Your task to perform on an android device: all mails in gmail Image 0: 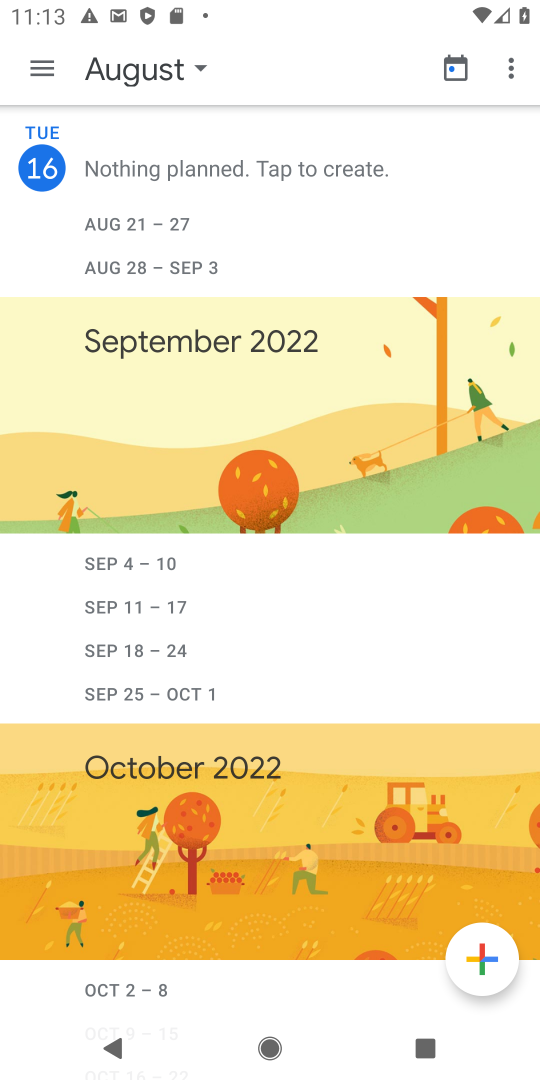
Step 0: press home button
Your task to perform on an android device: all mails in gmail Image 1: 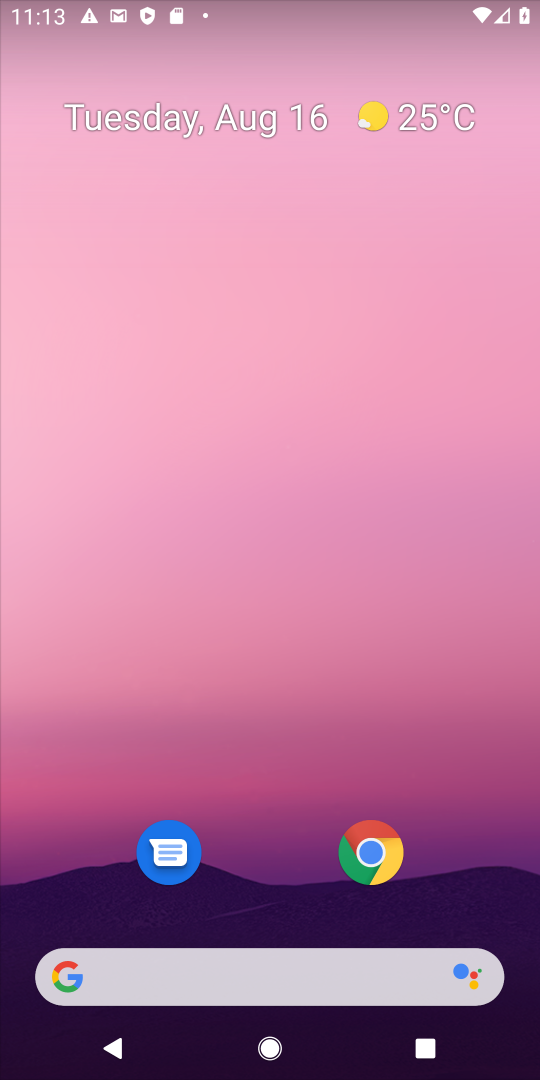
Step 1: drag from (233, 778) to (305, 277)
Your task to perform on an android device: all mails in gmail Image 2: 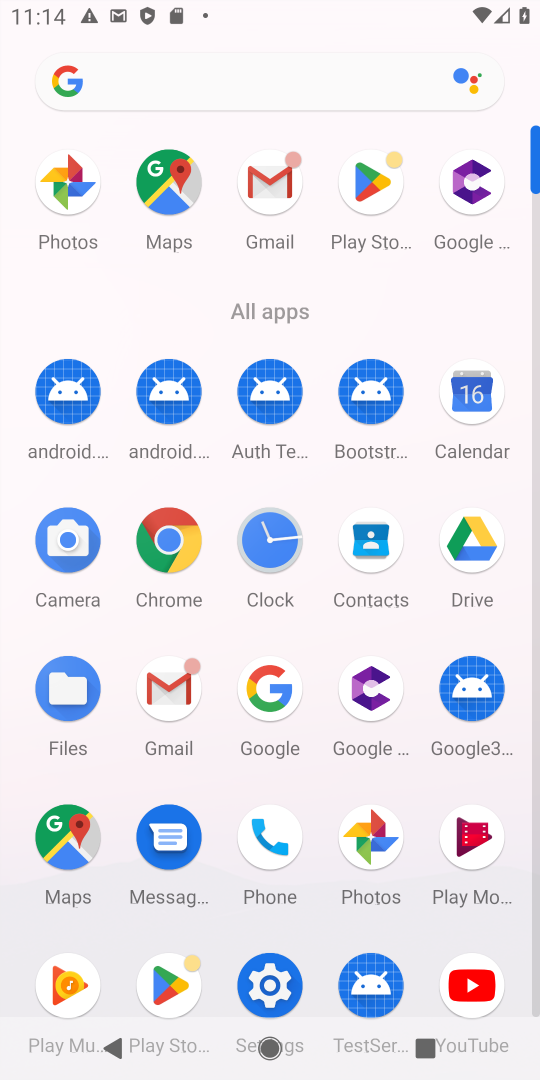
Step 2: click (172, 716)
Your task to perform on an android device: all mails in gmail Image 3: 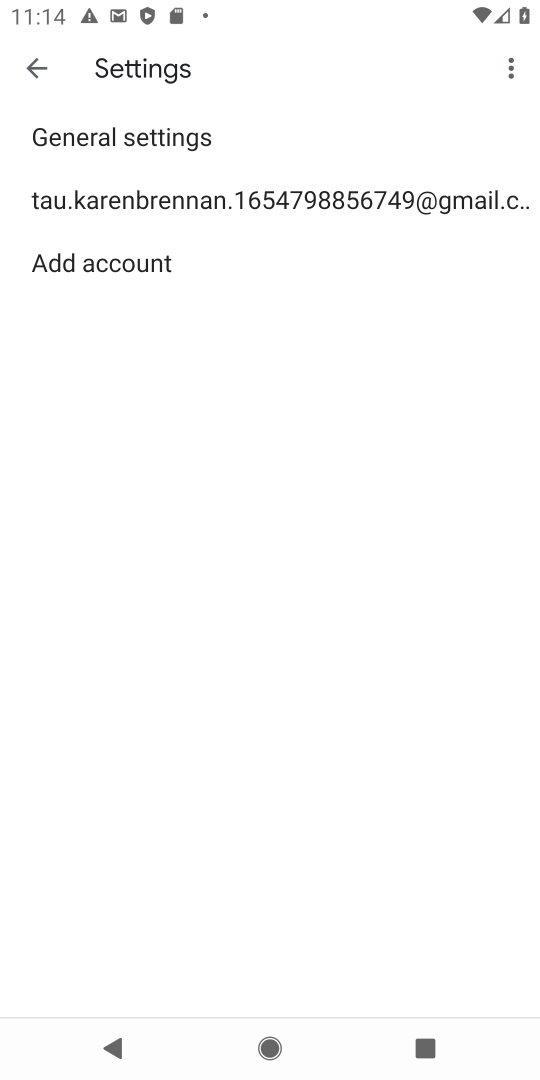
Step 3: task complete